Your task to perform on an android device: see tabs open on other devices in the chrome app Image 0: 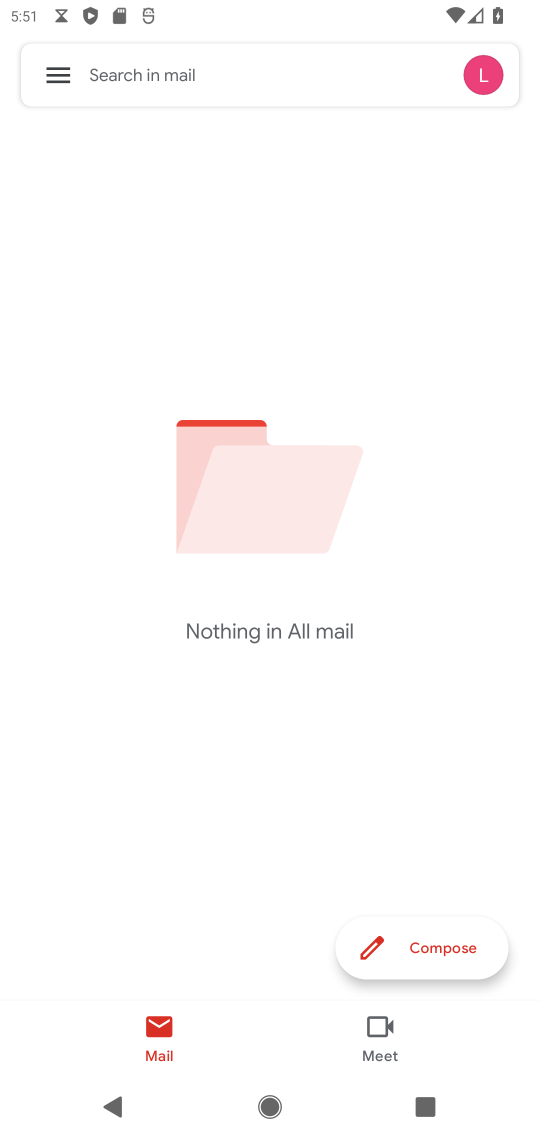
Step 0: press home button
Your task to perform on an android device: see tabs open on other devices in the chrome app Image 1: 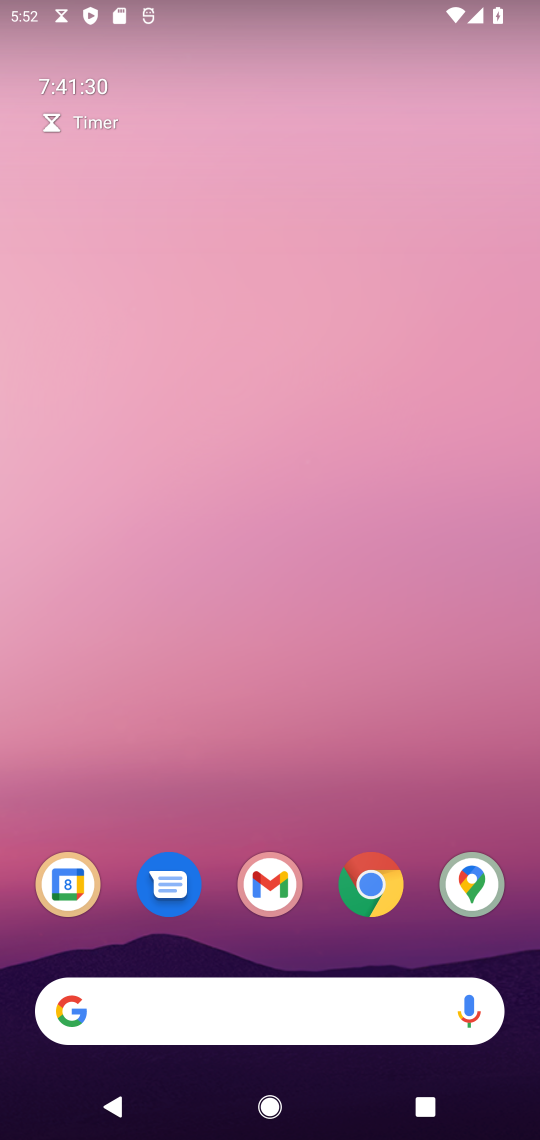
Step 1: click (381, 887)
Your task to perform on an android device: see tabs open on other devices in the chrome app Image 2: 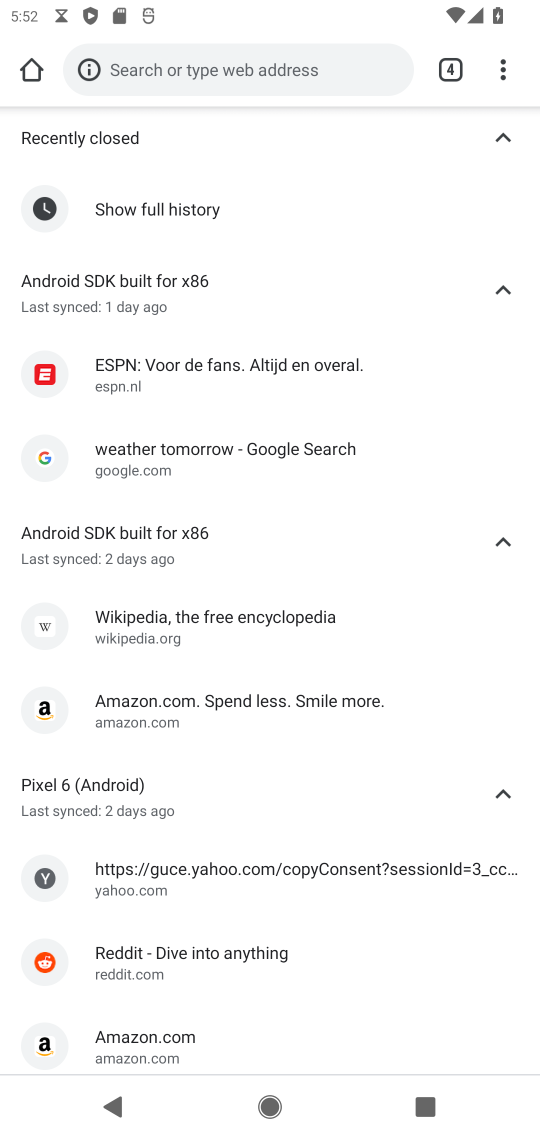
Step 2: click (505, 99)
Your task to perform on an android device: see tabs open on other devices in the chrome app Image 3: 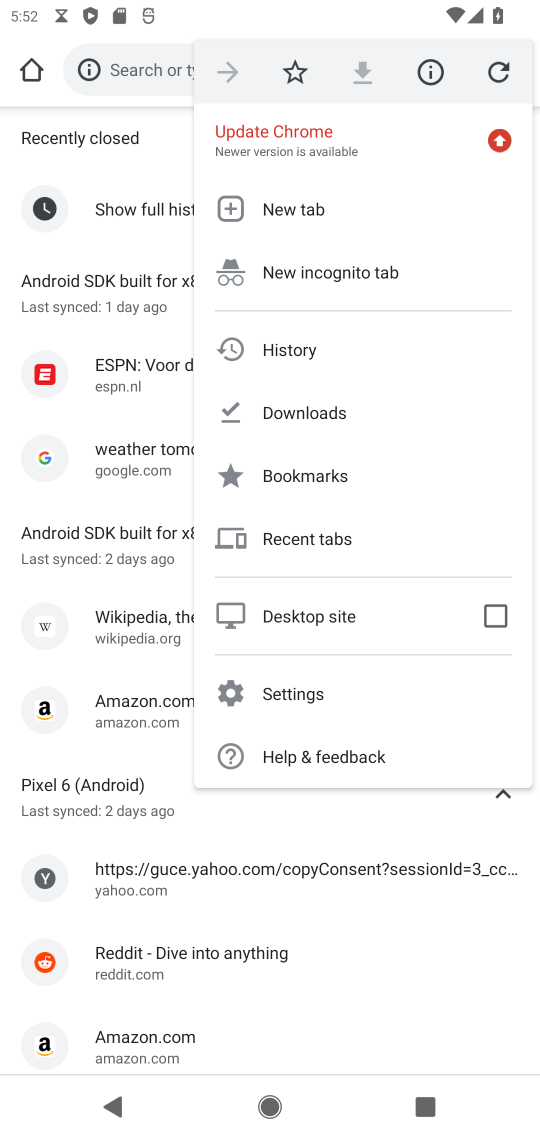
Step 3: click (351, 543)
Your task to perform on an android device: see tabs open on other devices in the chrome app Image 4: 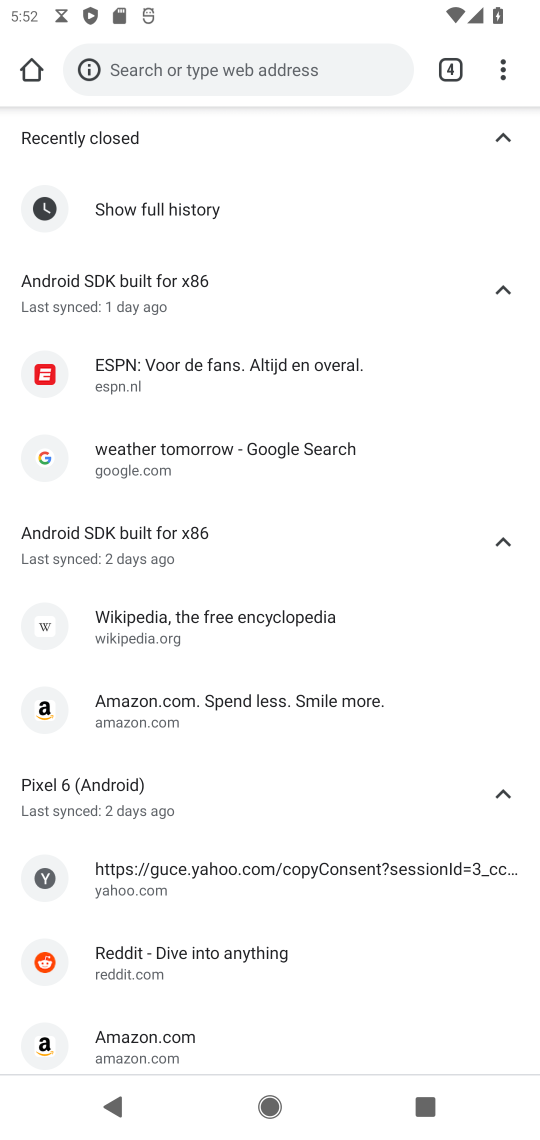
Step 4: task complete